Your task to perform on an android device: change the upload size in google photos Image 0: 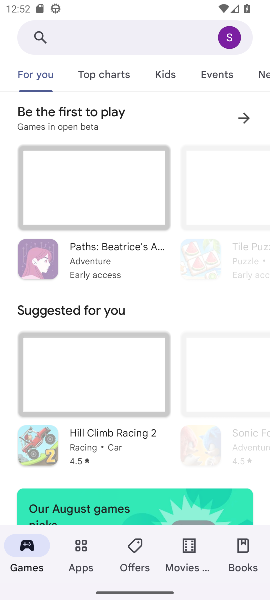
Step 0: press home button
Your task to perform on an android device: change the upload size in google photos Image 1: 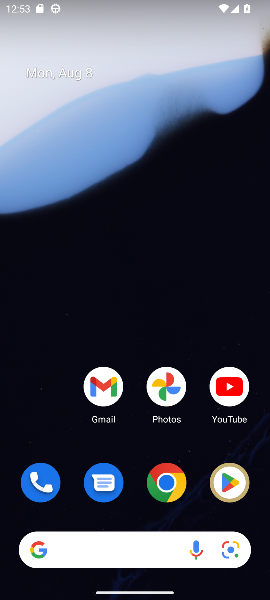
Step 1: click (171, 381)
Your task to perform on an android device: change the upload size in google photos Image 2: 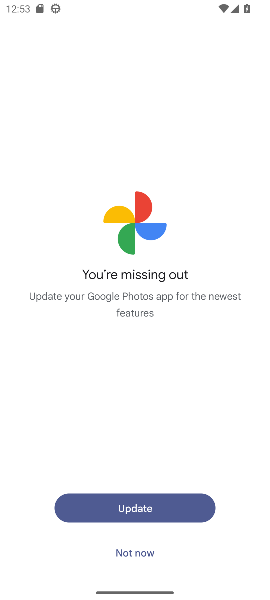
Step 2: click (141, 517)
Your task to perform on an android device: change the upload size in google photos Image 3: 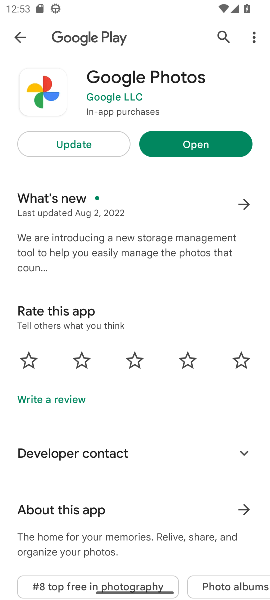
Step 3: click (102, 134)
Your task to perform on an android device: change the upload size in google photos Image 4: 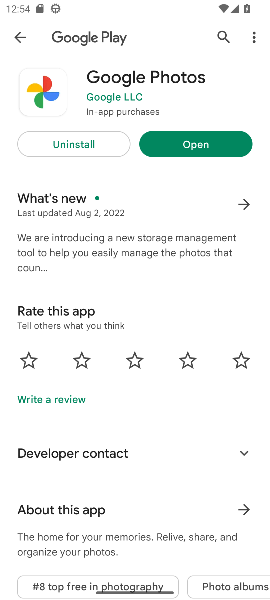
Step 4: click (184, 149)
Your task to perform on an android device: change the upload size in google photos Image 5: 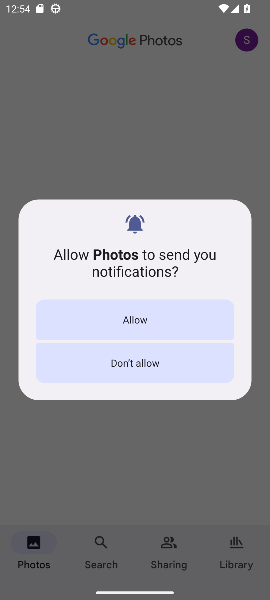
Step 5: click (142, 366)
Your task to perform on an android device: change the upload size in google photos Image 6: 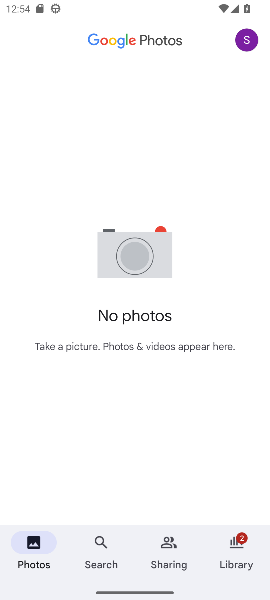
Step 6: click (253, 37)
Your task to perform on an android device: change the upload size in google photos Image 7: 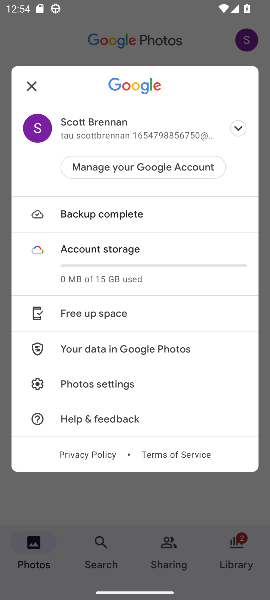
Step 7: click (100, 383)
Your task to perform on an android device: change the upload size in google photos Image 8: 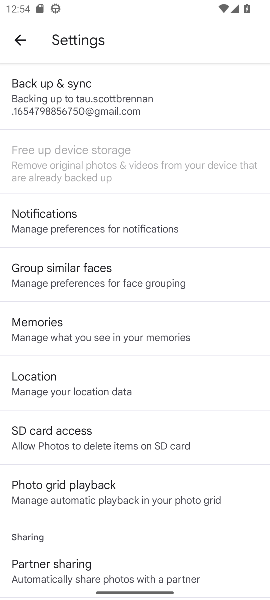
Step 8: click (96, 105)
Your task to perform on an android device: change the upload size in google photos Image 9: 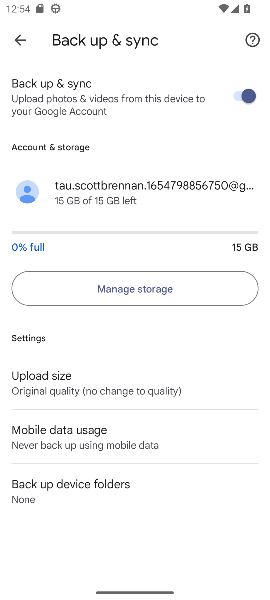
Step 9: click (90, 387)
Your task to perform on an android device: change the upload size in google photos Image 10: 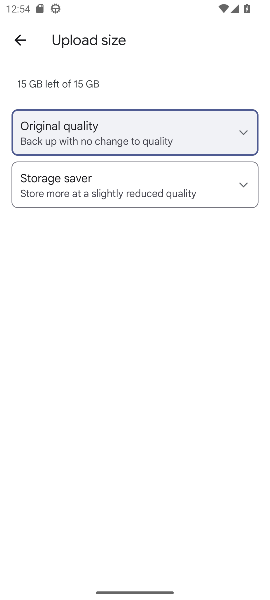
Step 10: click (78, 191)
Your task to perform on an android device: change the upload size in google photos Image 11: 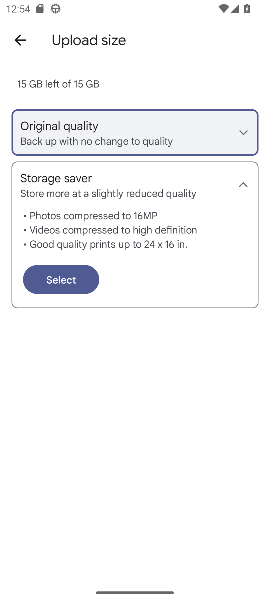
Step 11: click (55, 284)
Your task to perform on an android device: change the upload size in google photos Image 12: 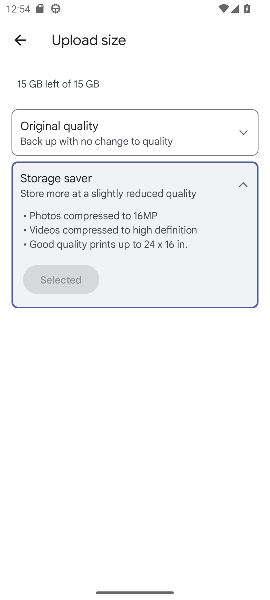
Step 12: task complete